Your task to perform on an android device: open chrome and create a bookmark for the current page Image 0: 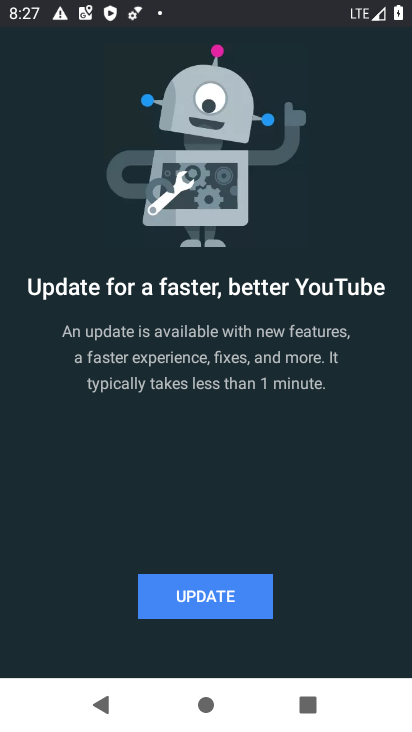
Step 0: press home button
Your task to perform on an android device: open chrome and create a bookmark for the current page Image 1: 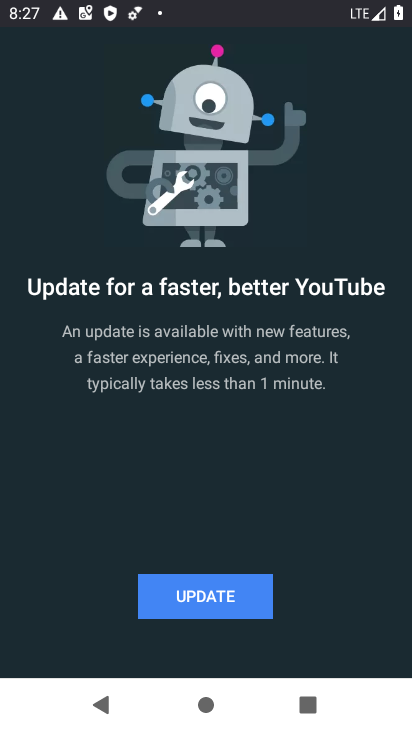
Step 1: press home button
Your task to perform on an android device: open chrome and create a bookmark for the current page Image 2: 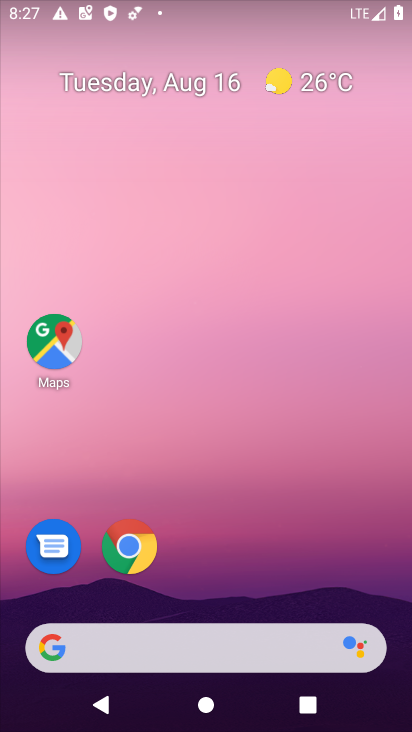
Step 2: click (133, 543)
Your task to perform on an android device: open chrome and create a bookmark for the current page Image 3: 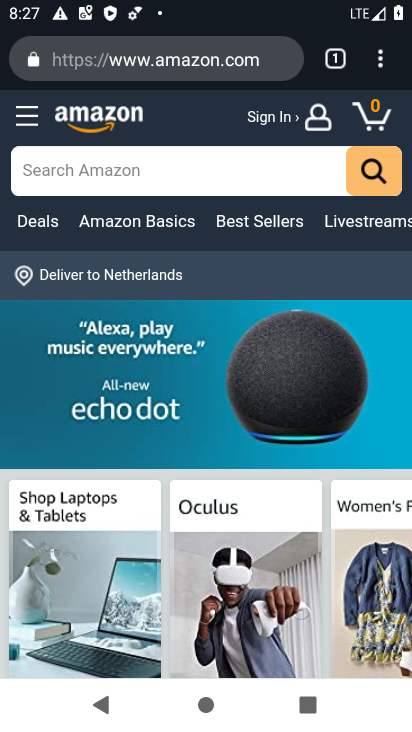
Step 3: click (386, 59)
Your task to perform on an android device: open chrome and create a bookmark for the current page Image 4: 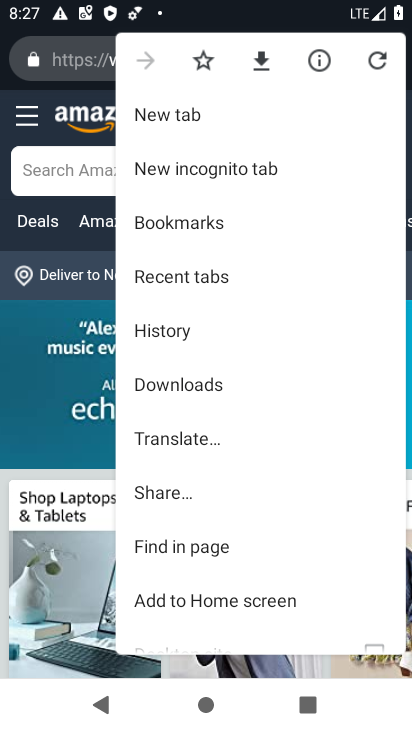
Step 4: click (197, 52)
Your task to perform on an android device: open chrome and create a bookmark for the current page Image 5: 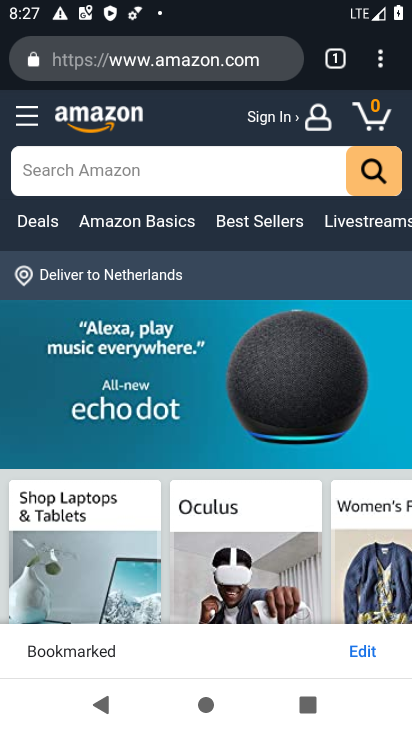
Step 5: task complete